Your task to perform on an android device: Set the phone to "Do not disturb". Image 0: 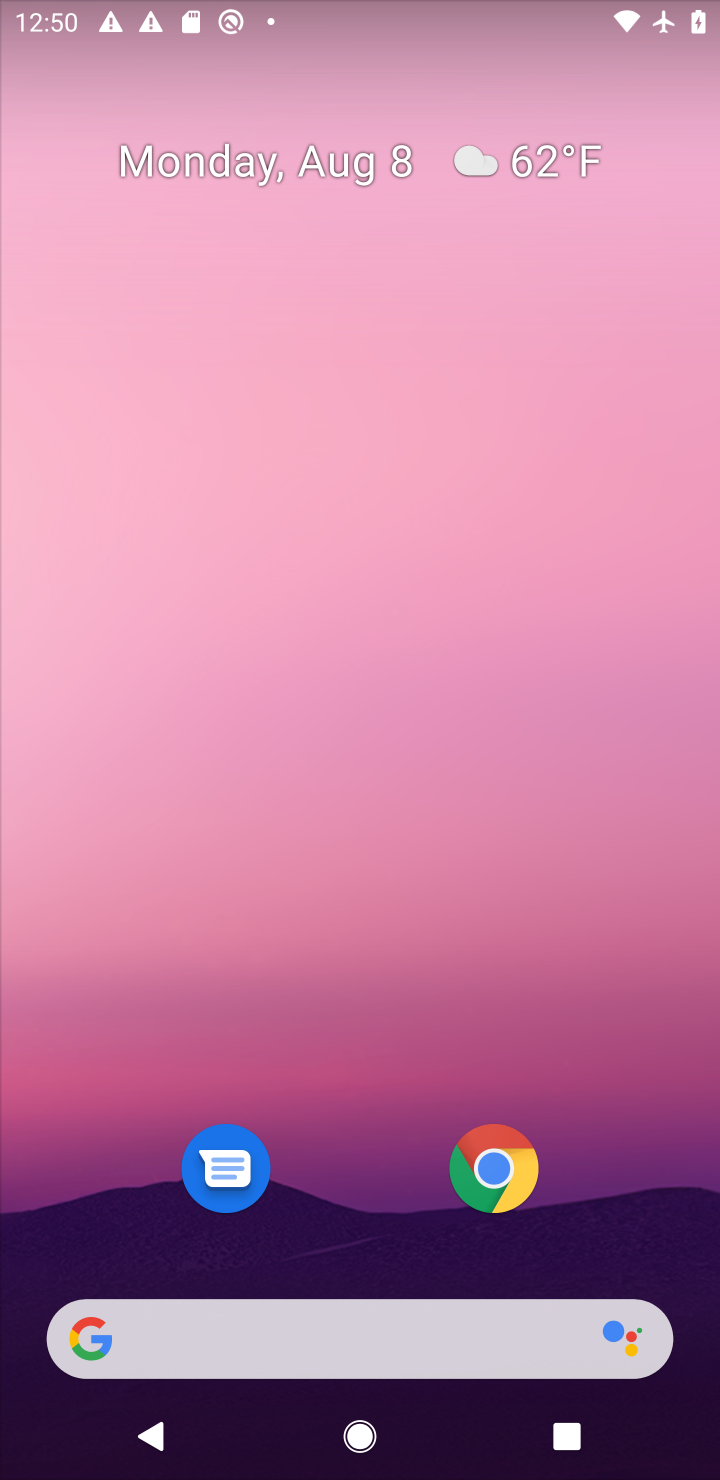
Step 0: drag from (458, 1272) to (342, 106)
Your task to perform on an android device: Set the phone to "Do not disturb". Image 1: 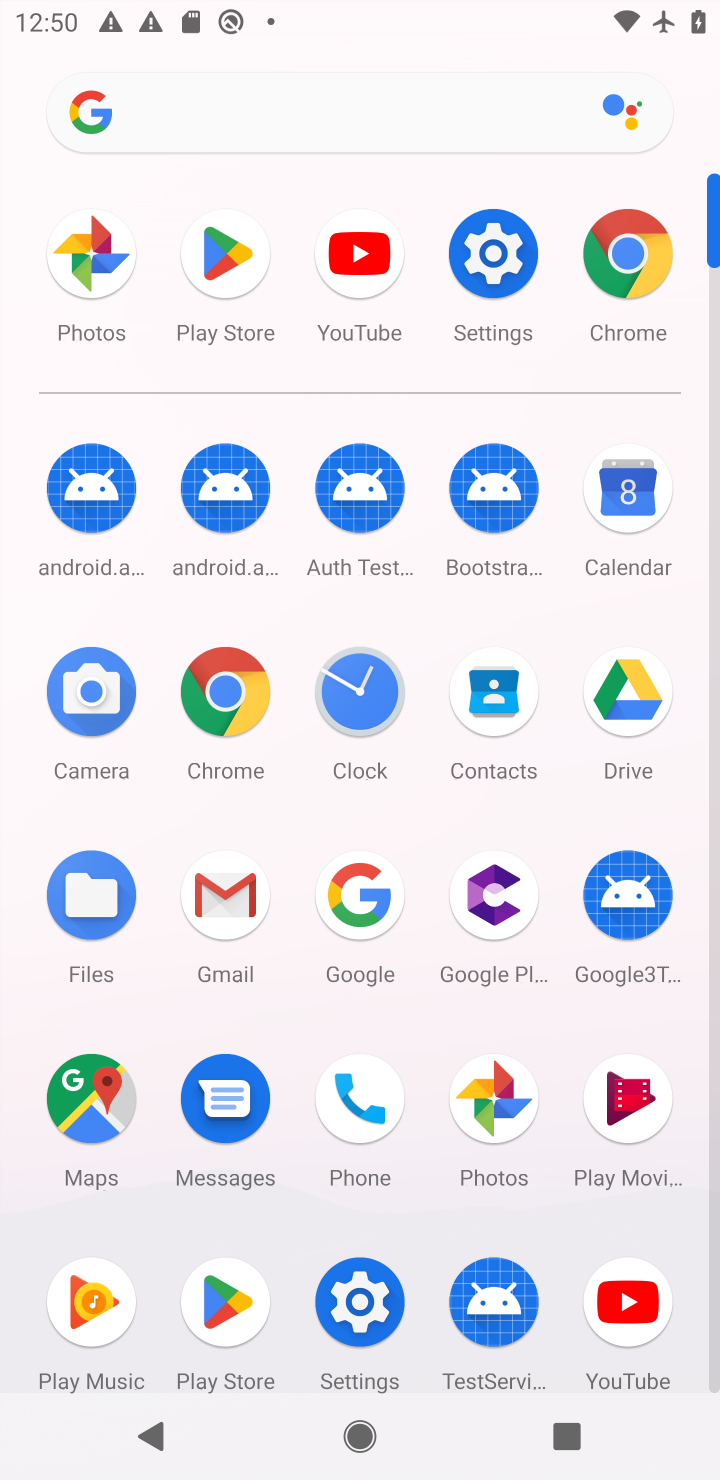
Step 1: click (334, 1310)
Your task to perform on an android device: Set the phone to "Do not disturb". Image 2: 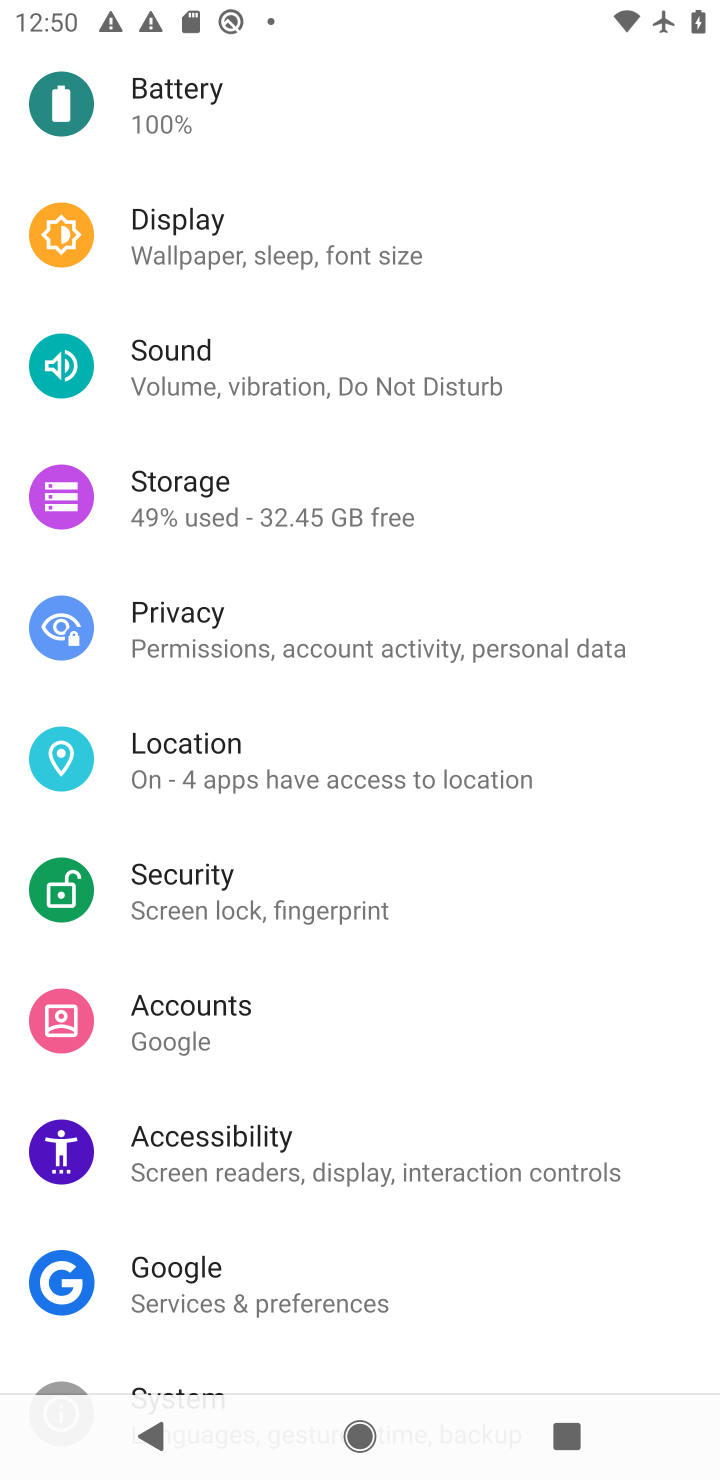
Step 2: click (269, 374)
Your task to perform on an android device: Set the phone to "Do not disturb". Image 3: 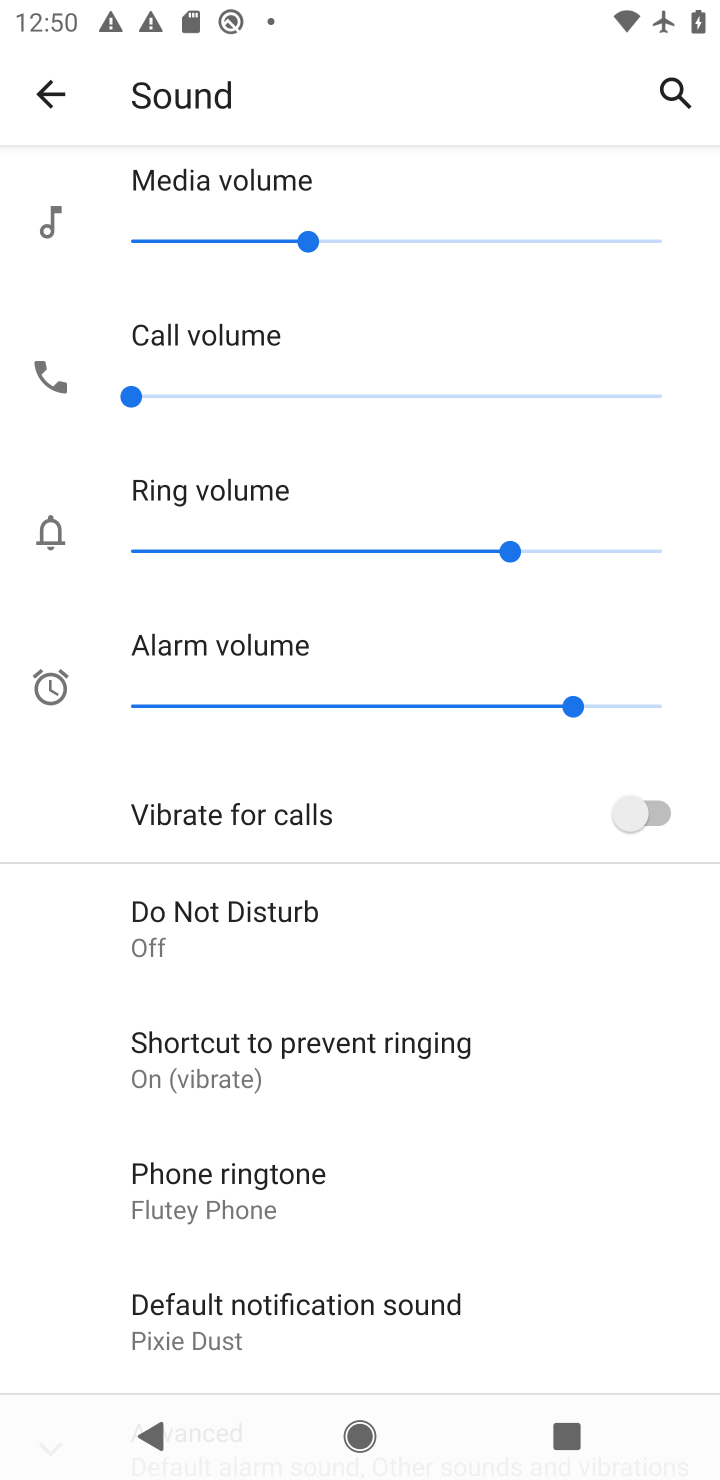
Step 3: click (307, 919)
Your task to perform on an android device: Set the phone to "Do not disturb". Image 4: 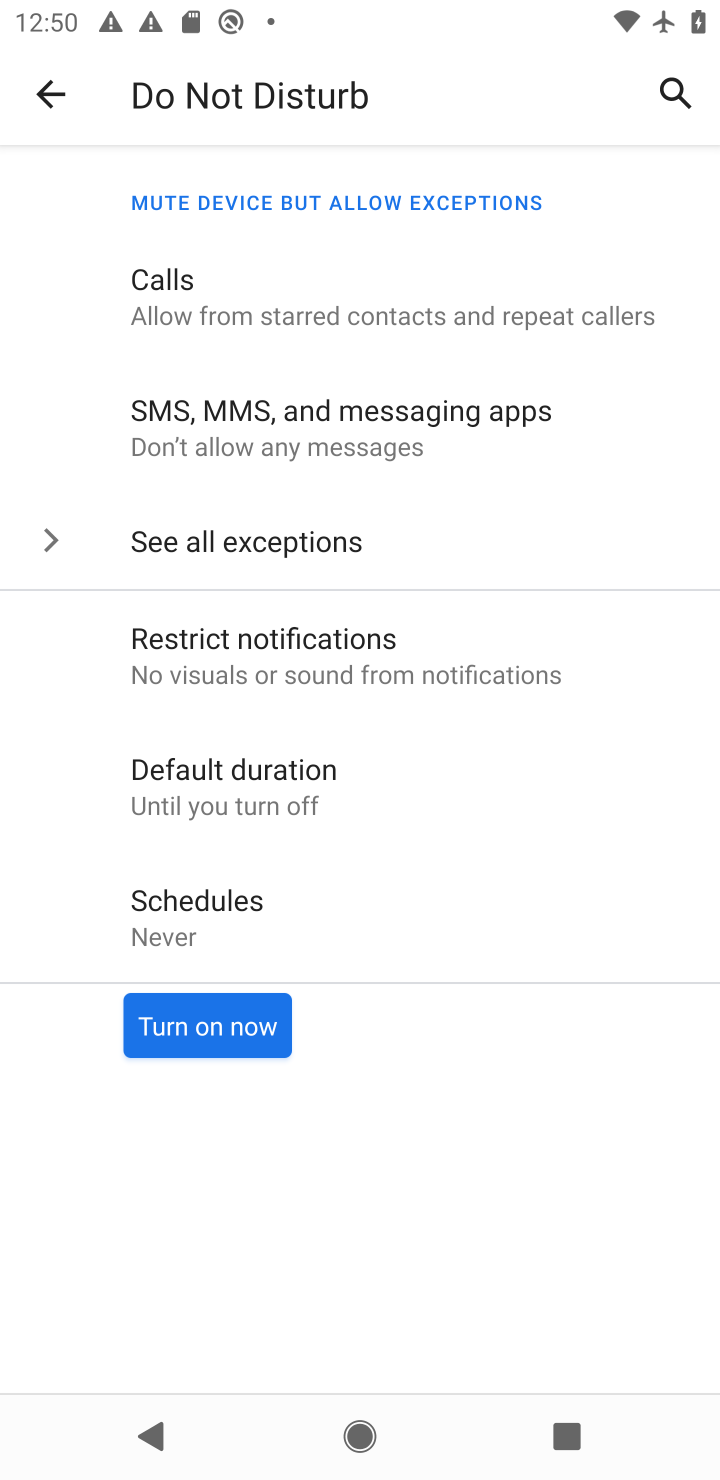
Step 4: task complete